Your task to perform on an android device: turn on the 24-hour format for clock Image 0: 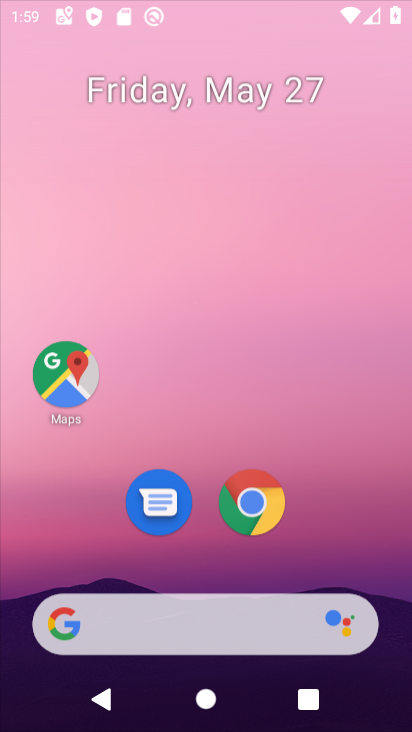
Step 0: drag from (352, 2) to (271, 43)
Your task to perform on an android device: turn on the 24-hour format for clock Image 1: 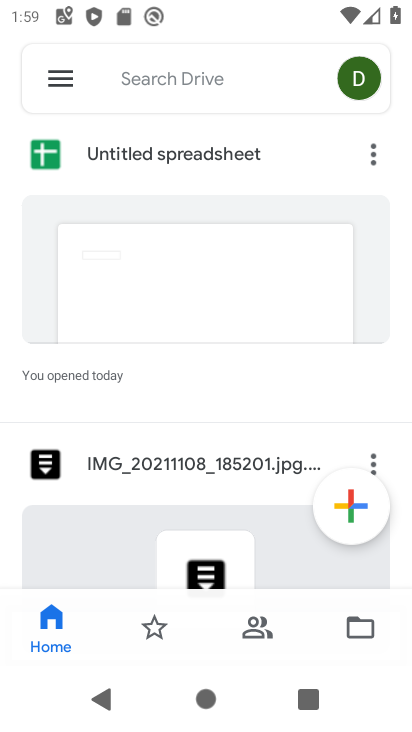
Step 1: press home button
Your task to perform on an android device: turn on the 24-hour format for clock Image 2: 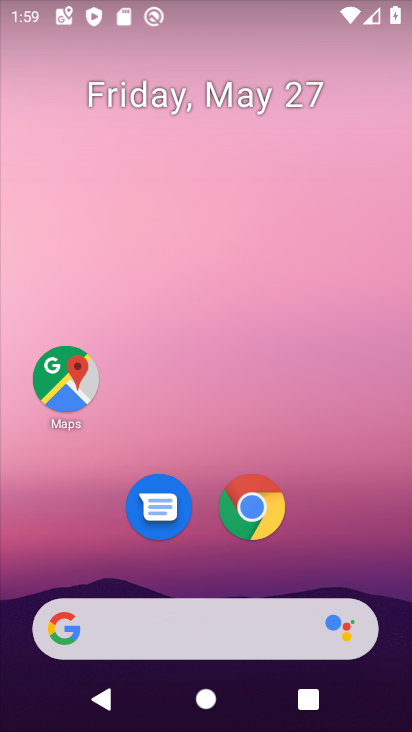
Step 2: drag from (161, 563) to (298, 78)
Your task to perform on an android device: turn on the 24-hour format for clock Image 3: 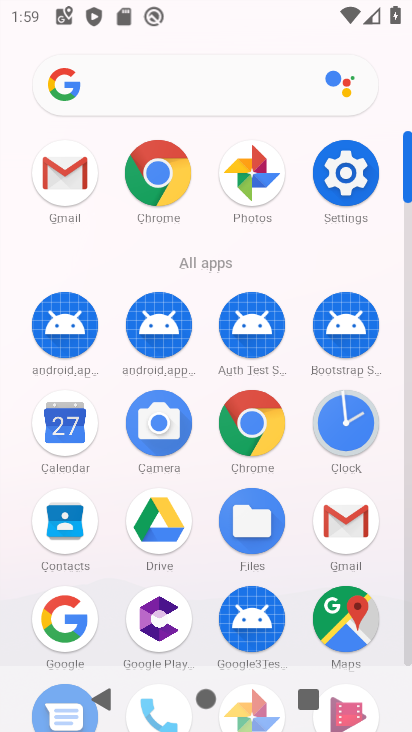
Step 3: click (341, 432)
Your task to perform on an android device: turn on the 24-hour format for clock Image 4: 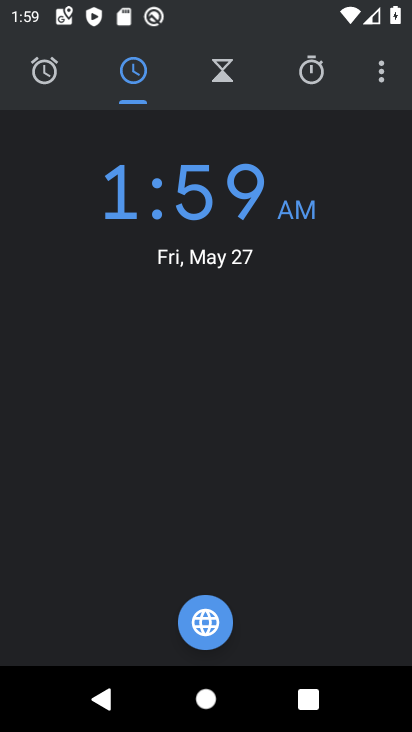
Step 4: drag from (263, 601) to (294, 71)
Your task to perform on an android device: turn on the 24-hour format for clock Image 5: 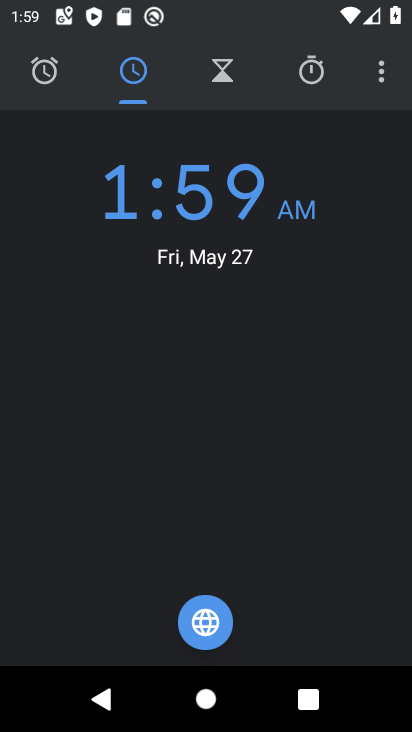
Step 5: drag from (273, 636) to (286, 116)
Your task to perform on an android device: turn on the 24-hour format for clock Image 6: 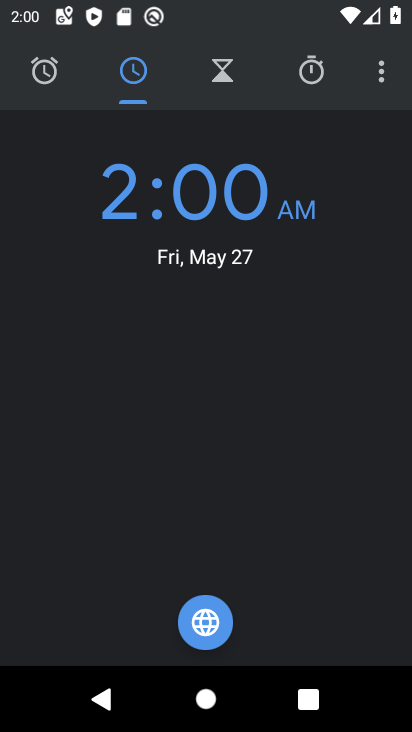
Step 6: click (377, 80)
Your task to perform on an android device: turn on the 24-hour format for clock Image 7: 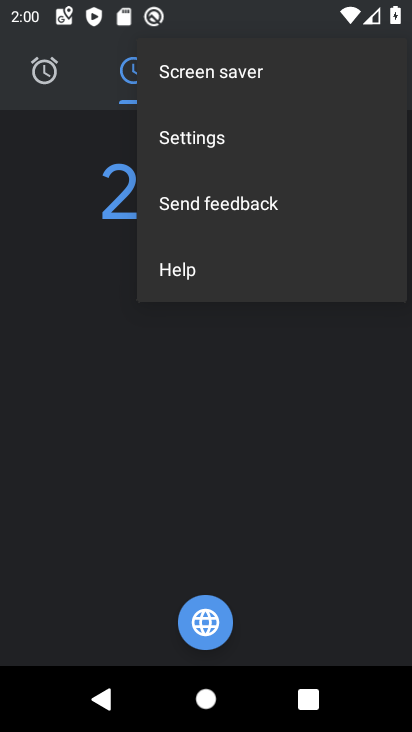
Step 7: click (254, 131)
Your task to perform on an android device: turn on the 24-hour format for clock Image 8: 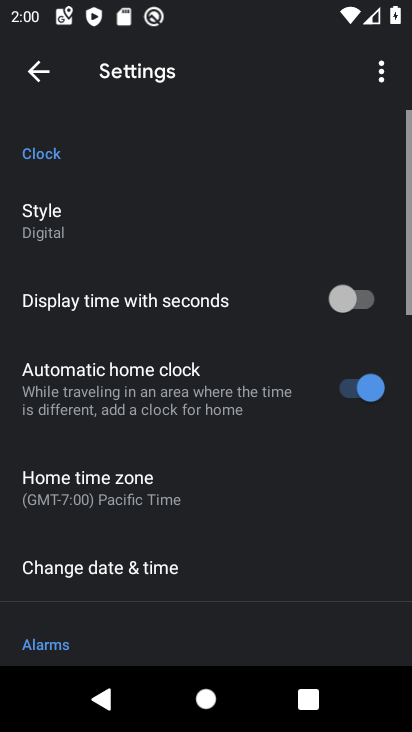
Step 8: drag from (236, 381) to (276, 275)
Your task to perform on an android device: turn on the 24-hour format for clock Image 9: 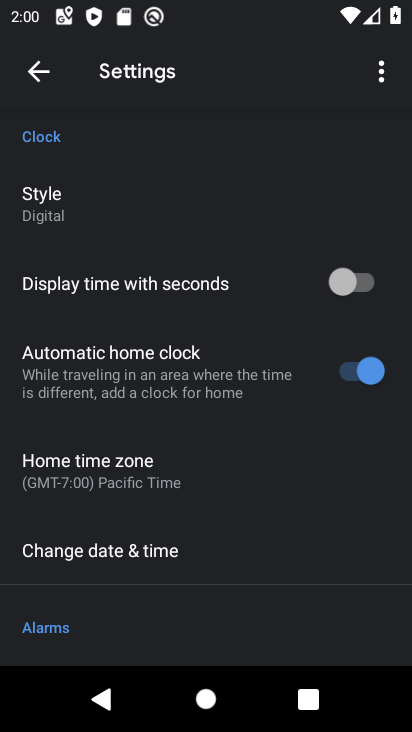
Step 9: click (185, 541)
Your task to perform on an android device: turn on the 24-hour format for clock Image 10: 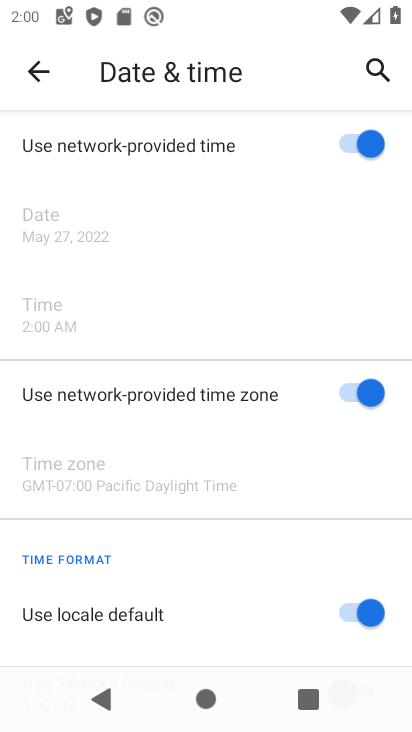
Step 10: drag from (251, 463) to (347, 127)
Your task to perform on an android device: turn on the 24-hour format for clock Image 11: 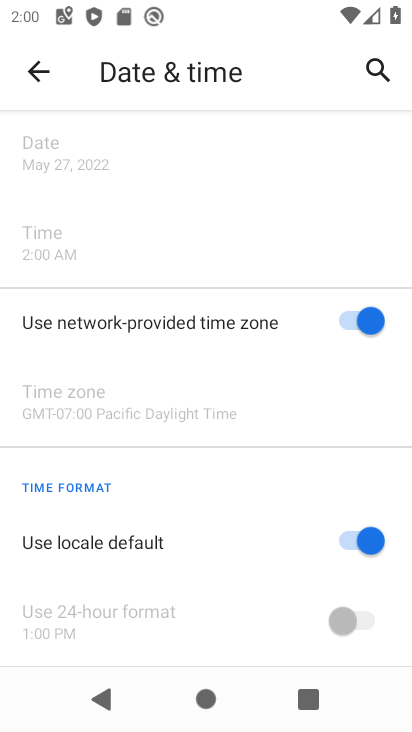
Step 11: drag from (56, 542) to (248, 117)
Your task to perform on an android device: turn on the 24-hour format for clock Image 12: 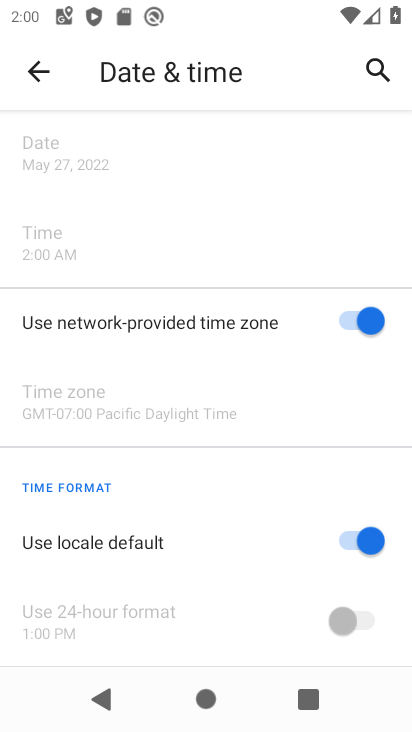
Step 12: drag from (206, 288) to (235, 694)
Your task to perform on an android device: turn on the 24-hour format for clock Image 13: 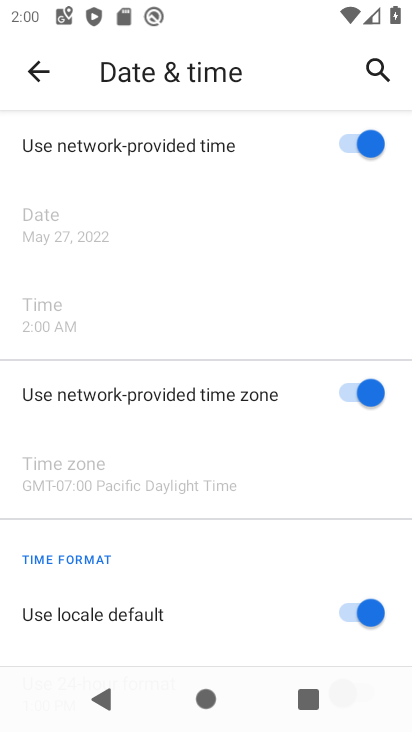
Step 13: drag from (224, 265) to (284, 728)
Your task to perform on an android device: turn on the 24-hour format for clock Image 14: 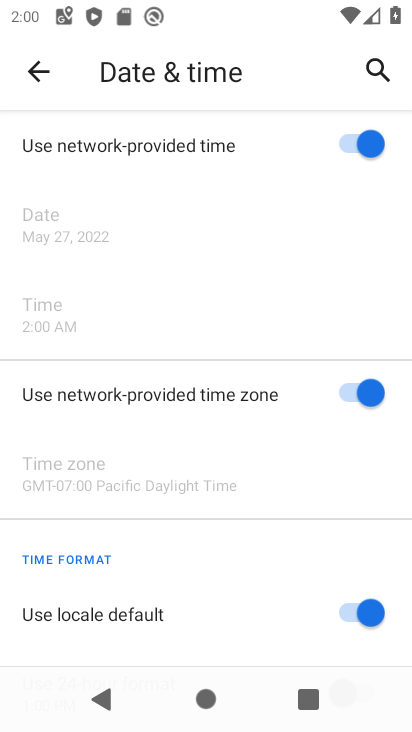
Step 14: drag from (245, 322) to (411, 722)
Your task to perform on an android device: turn on the 24-hour format for clock Image 15: 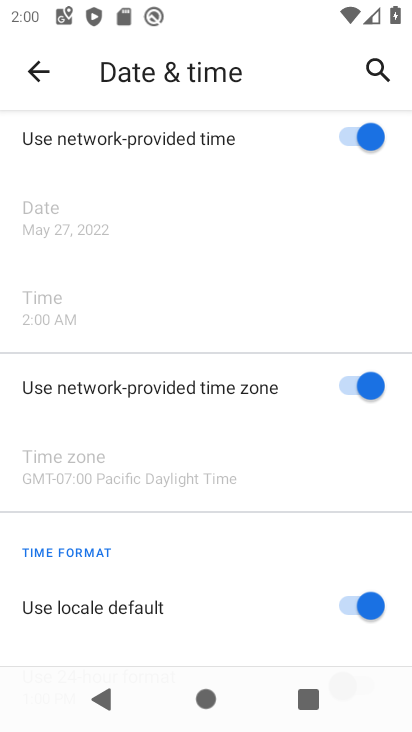
Step 15: drag from (275, 546) to (349, 132)
Your task to perform on an android device: turn on the 24-hour format for clock Image 16: 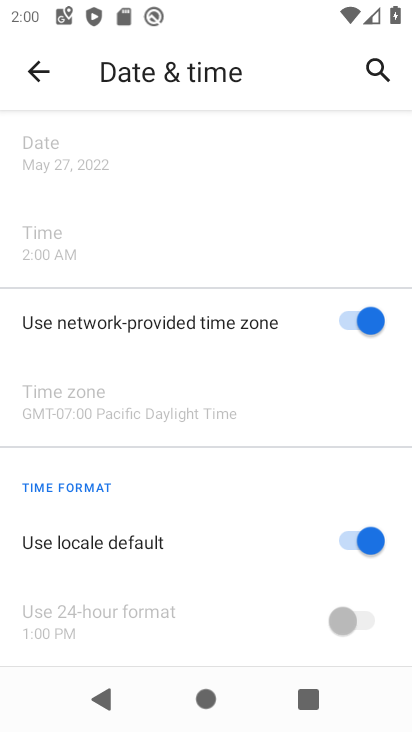
Step 16: click (355, 534)
Your task to perform on an android device: turn on the 24-hour format for clock Image 17: 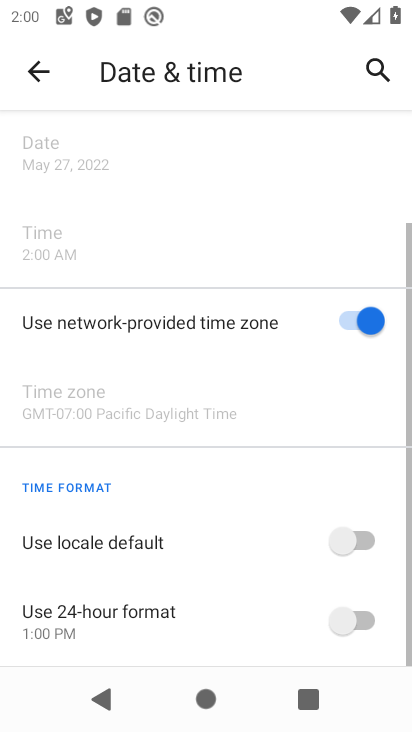
Step 17: click (339, 627)
Your task to perform on an android device: turn on the 24-hour format for clock Image 18: 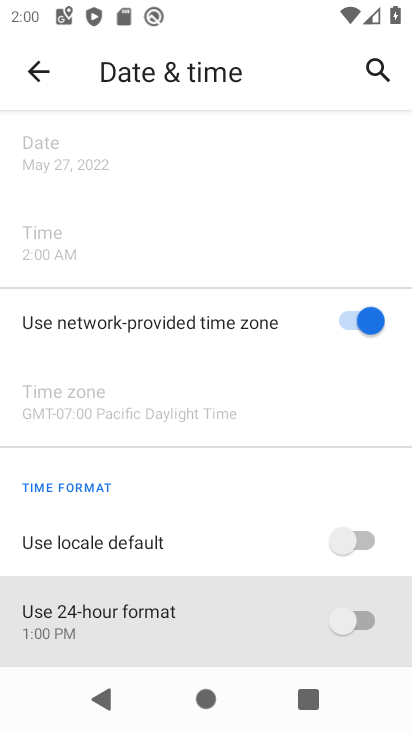
Step 18: task complete